Your task to perform on an android device: set default search engine in the chrome app Image 0: 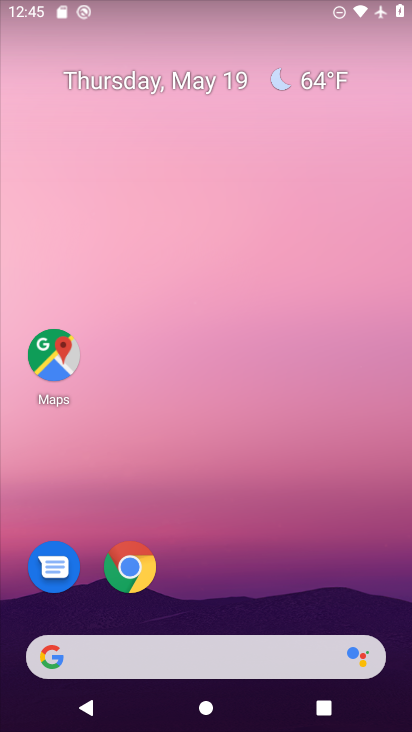
Step 0: click (136, 569)
Your task to perform on an android device: set default search engine in the chrome app Image 1: 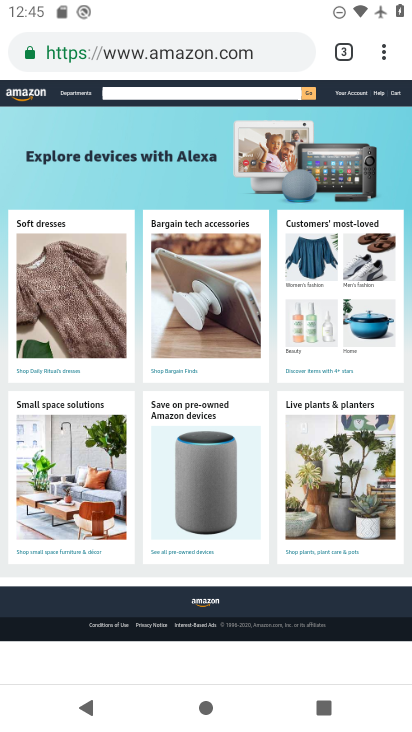
Step 1: drag from (380, 56) to (245, 609)
Your task to perform on an android device: set default search engine in the chrome app Image 2: 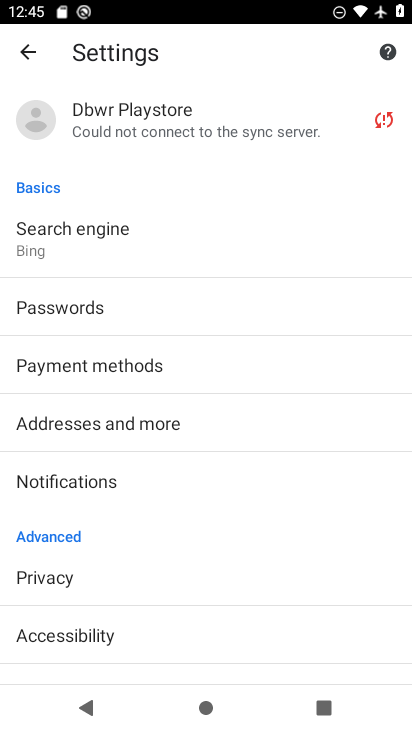
Step 2: drag from (137, 629) to (117, 408)
Your task to perform on an android device: set default search engine in the chrome app Image 3: 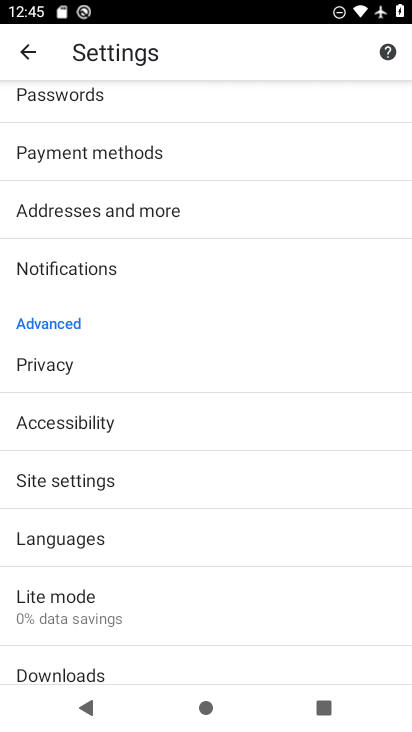
Step 3: drag from (184, 214) to (191, 577)
Your task to perform on an android device: set default search engine in the chrome app Image 4: 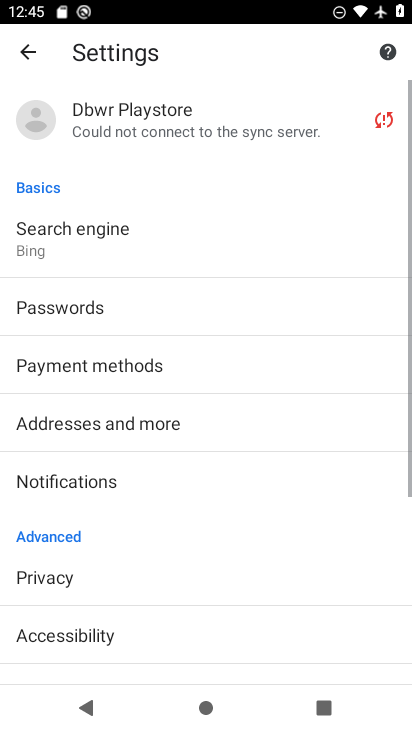
Step 4: click (126, 223)
Your task to perform on an android device: set default search engine in the chrome app Image 5: 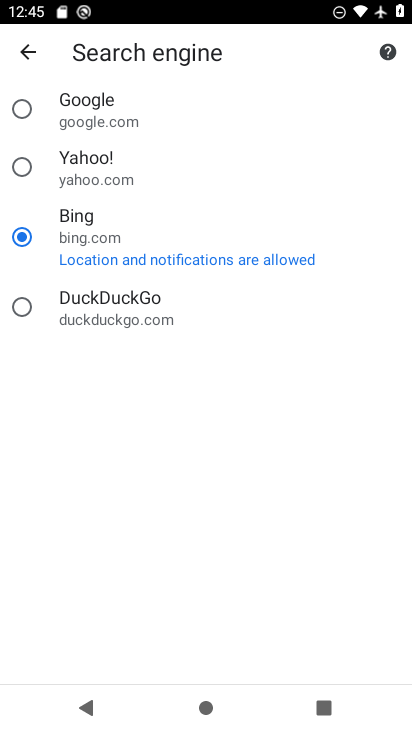
Step 5: click (149, 119)
Your task to perform on an android device: set default search engine in the chrome app Image 6: 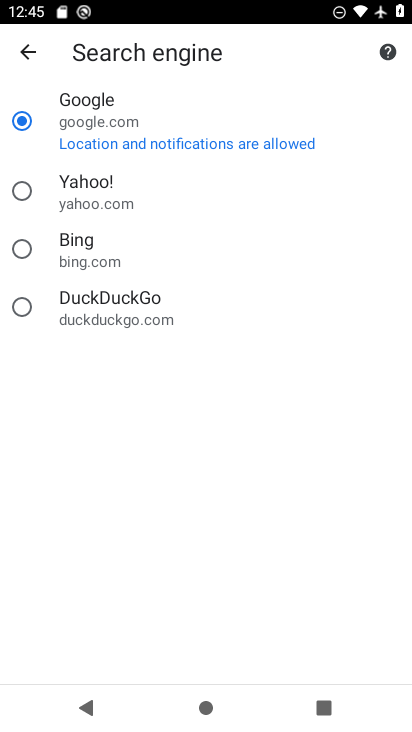
Step 6: task complete